Your task to perform on an android device: Go to accessibility settings Image 0: 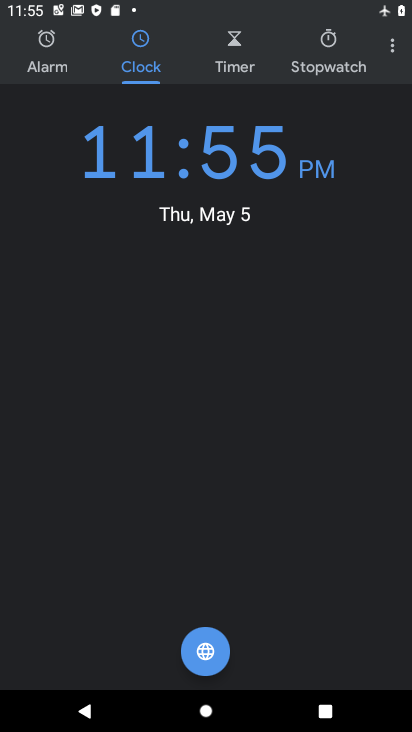
Step 0: press home button
Your task to perform on an android device: Go to accessibility settings Image 1: 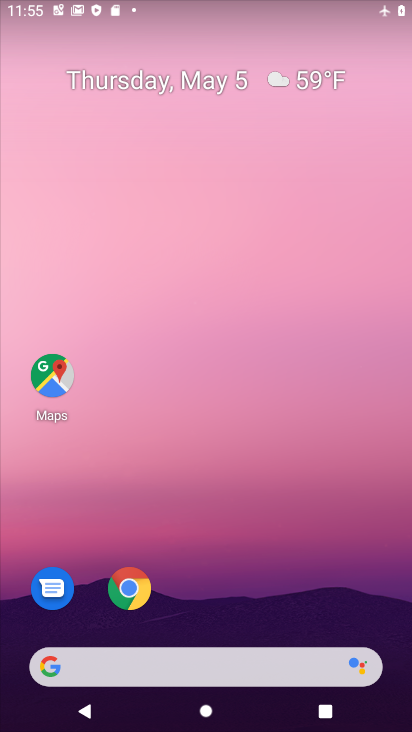
Step 1: drag from (142, 662) to (246, 122)
Your task to perform on an android device: Go to accessibility settings Image 2: 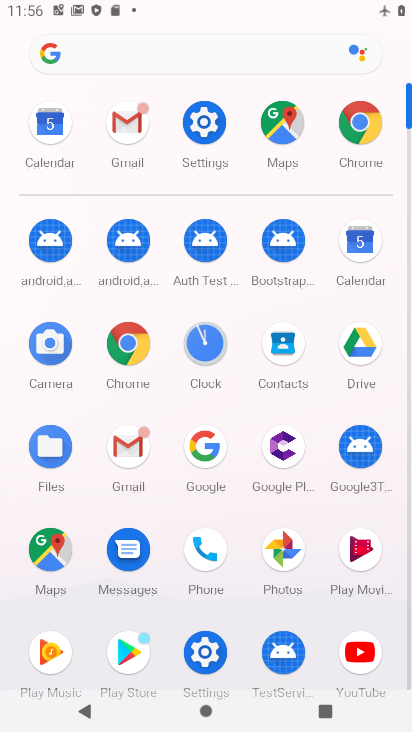
Step 2: click (200, 133)
Your task to perform on an android device: Go to accessibility settings Image 3: 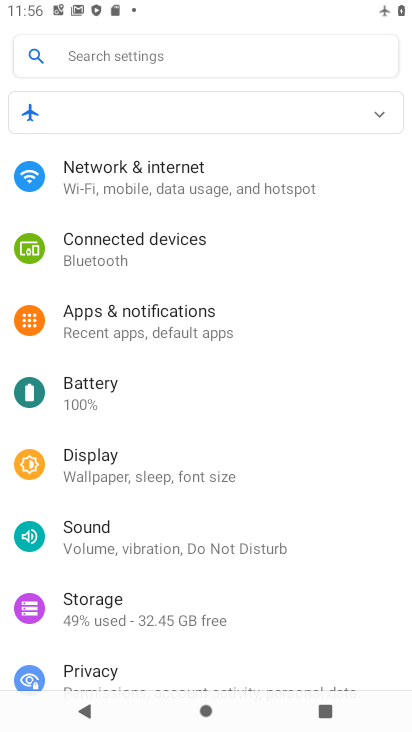
Step 3: drag from (220, 615) to (343, 64)
Your task to perform on an android device: Go to accessibility settings Image 4: 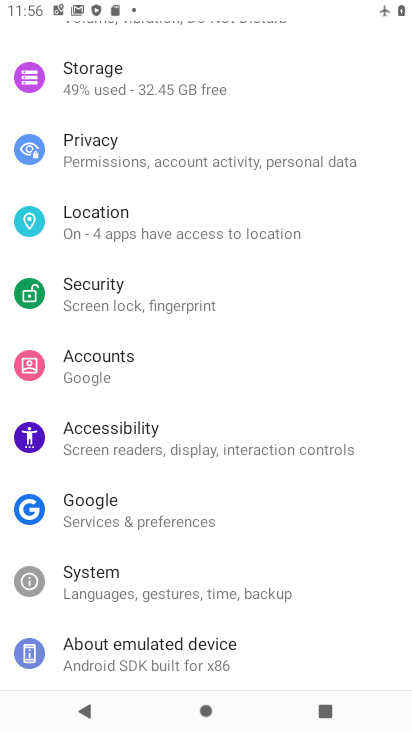
Step 4: click (148, 433)
Your task to perform on an android device: Go to accessibility settings Image 5: 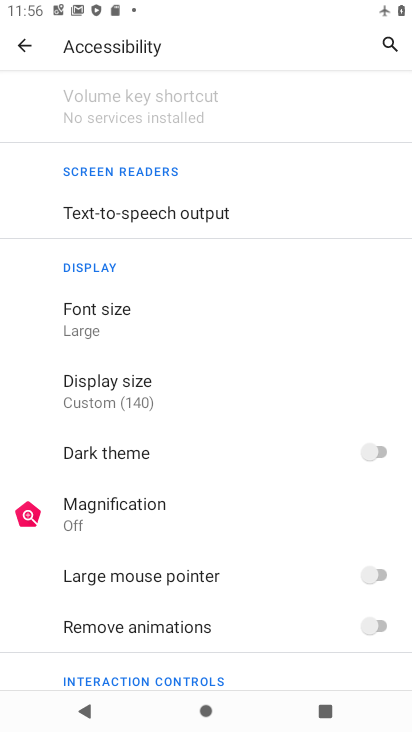
Step 5: task complete